Your task to perform on an android device: Add sony triple a to the cart on bestbuy.com Image 0: 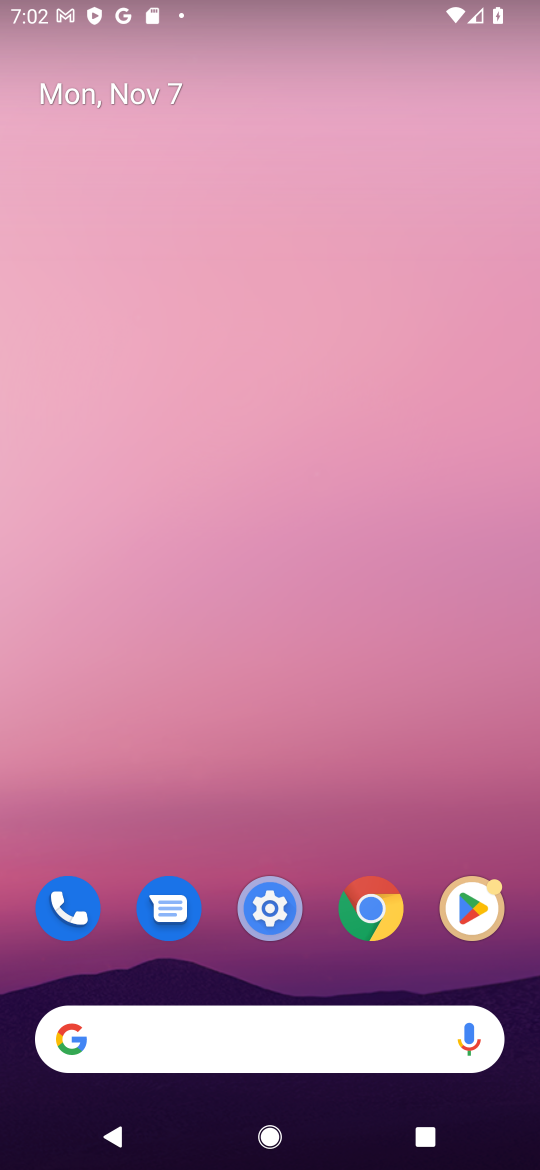
Step 0: click (346, 1047)
Your task to perform on an android device: Add sony triple a to the cart on bestbuy.com Image 1: 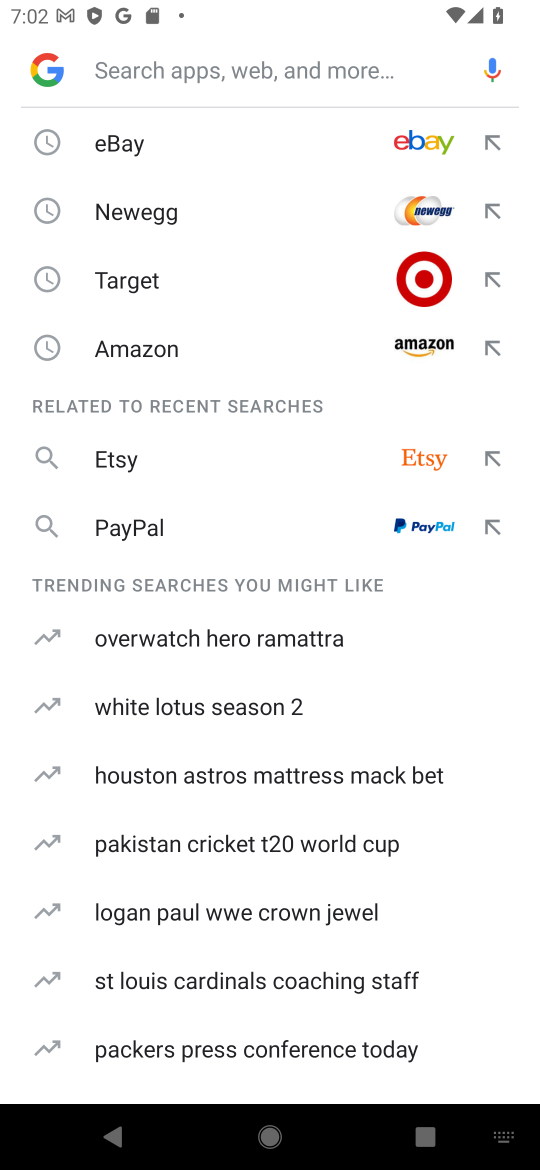
Step 1: type "bestbuy"
Your task to perform on an android device: Add sony triple a to the cart on bestbuy.com Image 2: 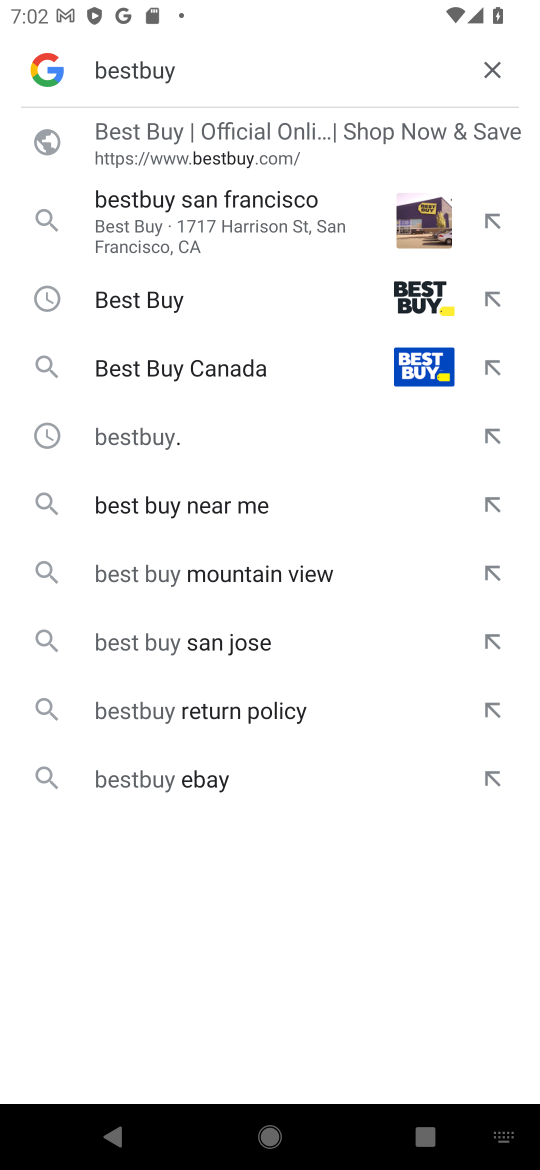
Step 2: click (276, 138)
Your task to perform on an android device: Add sony triple a to the cart on bestbuy.com Image 3: 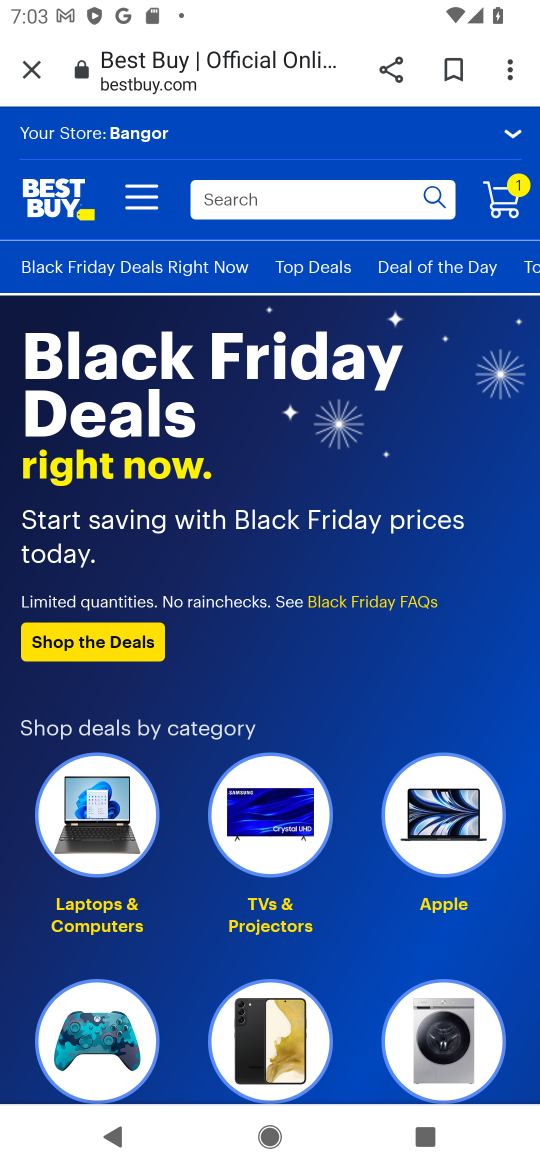
Step 3: task complete